Your task to perform on an android device: What's on my calendar tomorrow? Image 0: 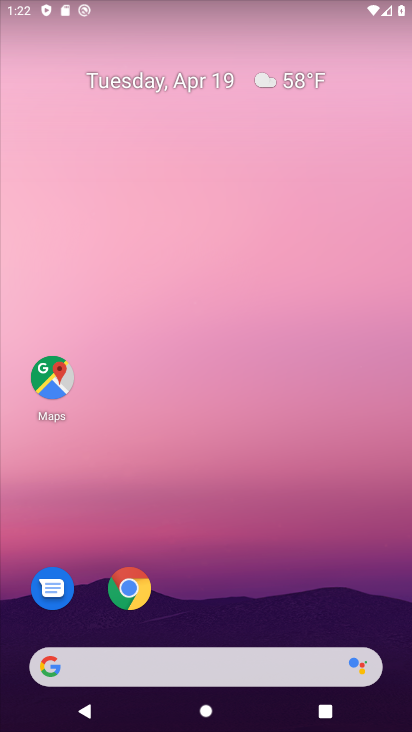
Step 0: drag from (365, 527) to (364, 93)
Your task to perform on an android device: What's on my calendar tomorrow? Image 1: 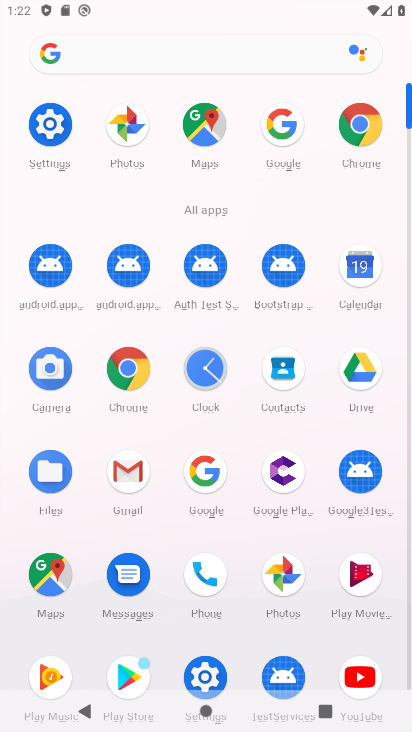
Step 1: click (362, 269)
Your task to perform on an android device: What's on my calendar tomorrow? Image 2: 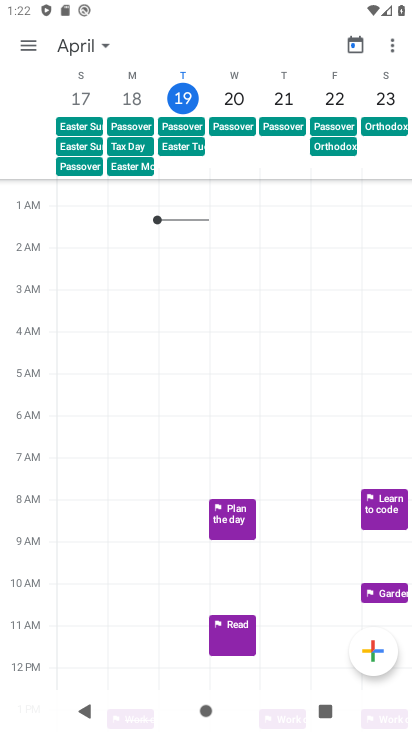
Step 2: drag from (190, 446) to (190, 330)
Your task to perform on an android device: What's on my calendar tomorrow? Image 3: 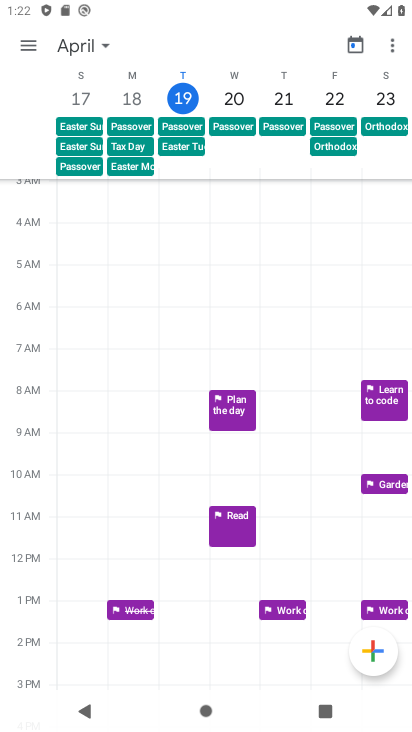
Step 3: click (233, 395)
Your task to perform on an android device: What's on my calendar tomorrow? Image 4: 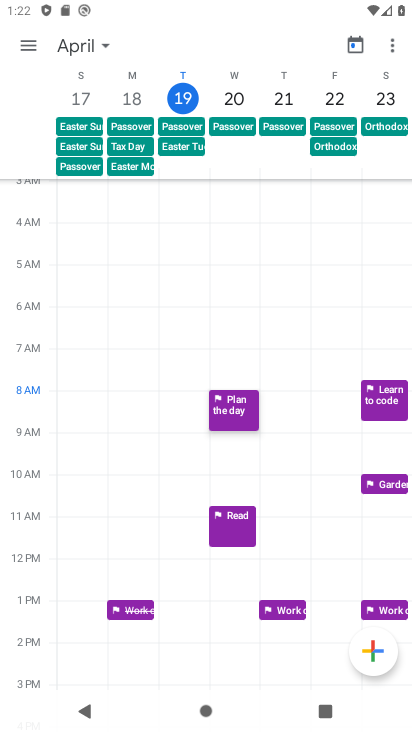
Step 4: click (235, 414)
Your task to perform on an android device: What's on my calendar tomorrow? Image 5: 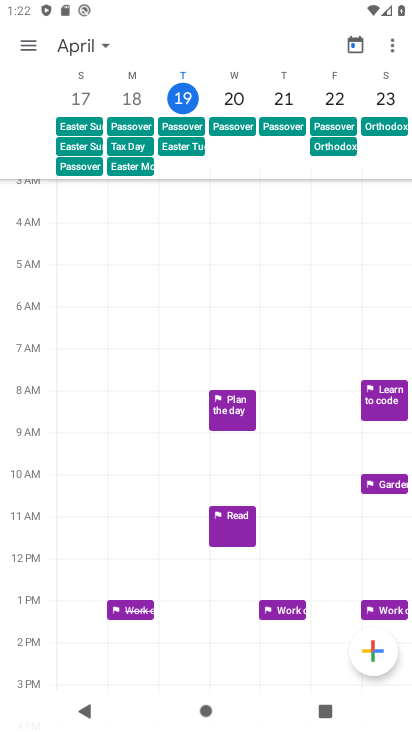
Step 5: click (235, 414)
Your task to perform on an android device: What's on my calendar tomorrow? Image 6: 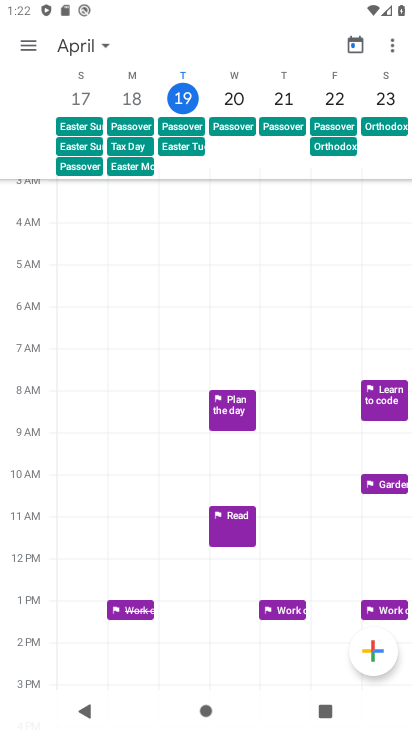
Step 6: task complete